Your task to perform on an android device: change keyboard looks Image 0: 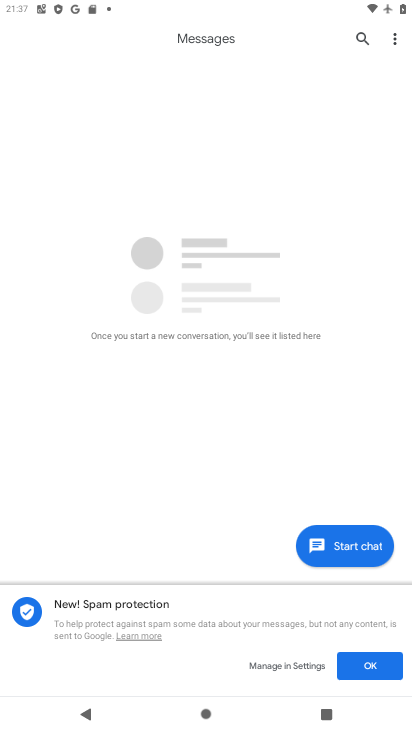
Step 0: press home button
Your task to perform on an android device: change keyboard looks Image 1: 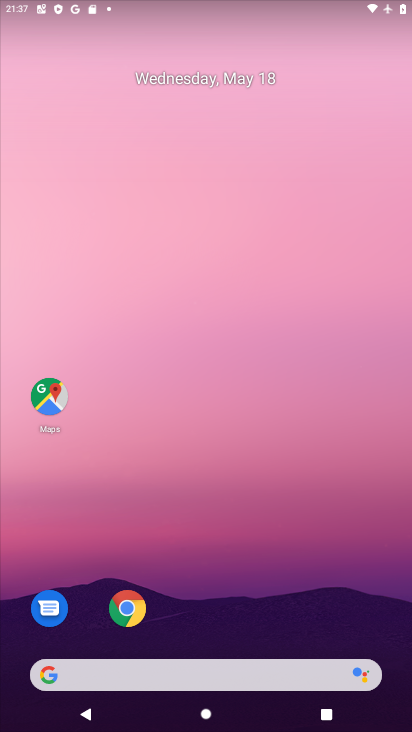
Step 1: drag from (244, 616) to (142, 39)
Your task to perform on an android device: change keyboard looks Image 2: 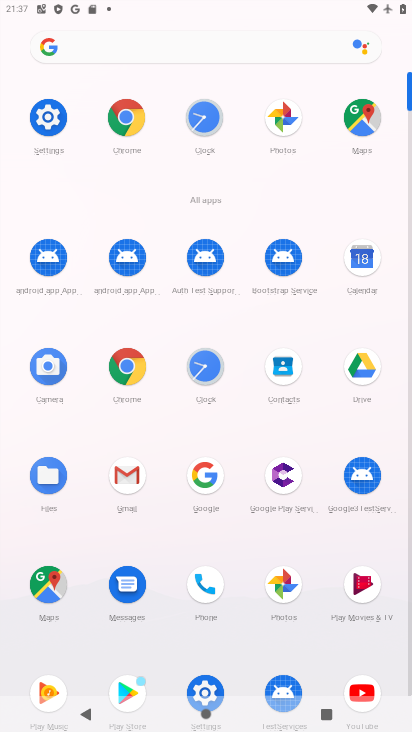
Step 2: click (63, 118)
Your task to perform on an android device: change keyboard looks Image 3: 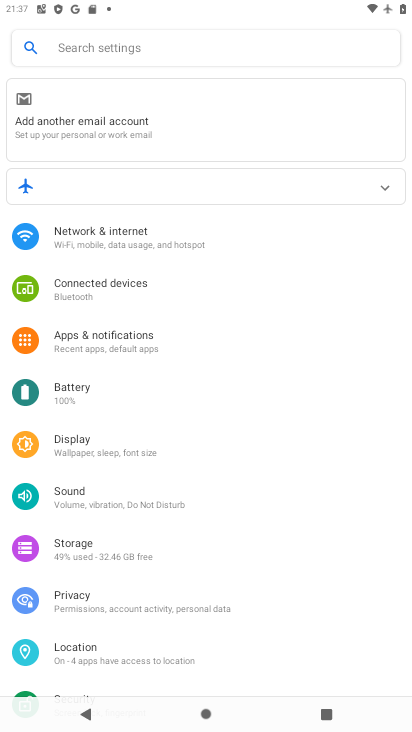
Step 3: drag from (155, 571) to (122, 154)
Your task to perform on an android device: change keyboard looks Image 4: 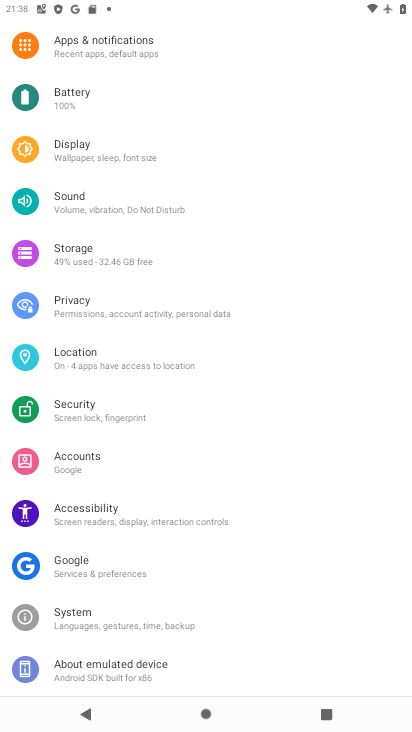
Step 4: click (107, 606)
Your task to perform on an android device: change keyboard looks Image 5: 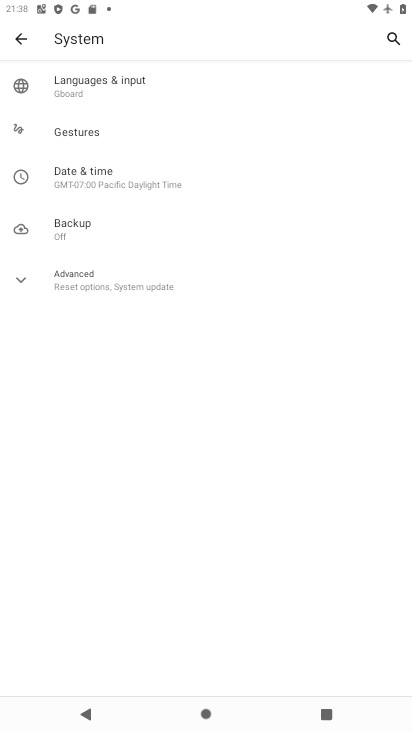
Step 5: click (43, 96)
Your task to perform on an android device: change keyboard looks Image 6: 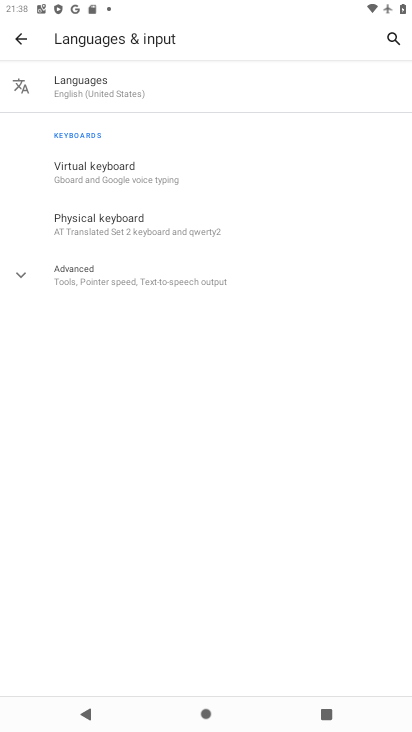
Step 6: click (165, 172)
Your task to perform on an android device: change keyboard looks Image 7: 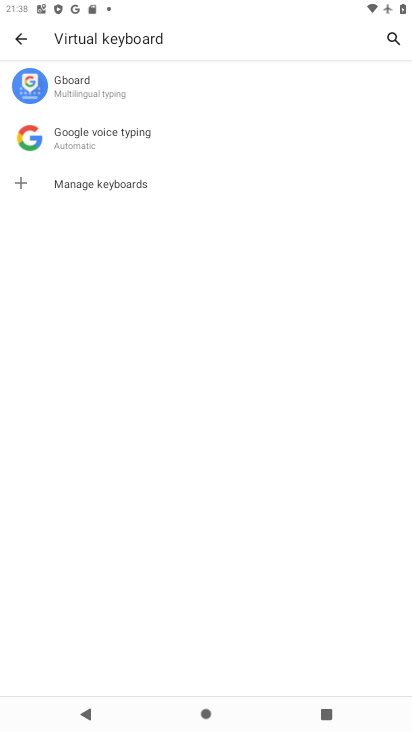
Step 7: click (122, 76)
Your task to perform on an android device: change keyboard looks Image 8: 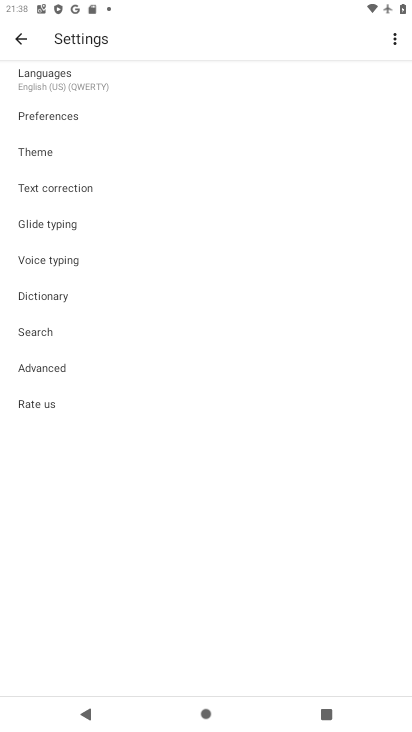
Step 8: click (95, 146)
Your task to perform on an android device: change keyboard looks Image 9: 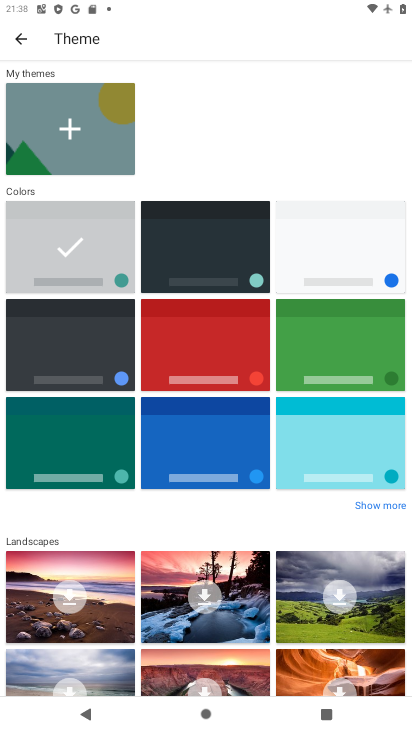
Step 9: click (196, 219)
Your task to perform on an android device: change keyboard looks Image 10: 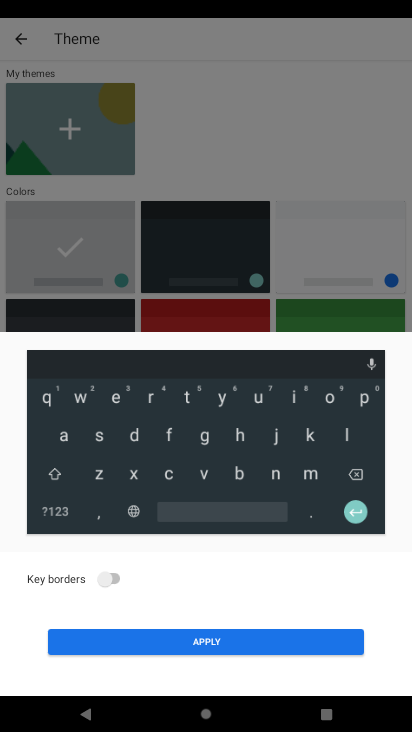
Step 10: click (289, 644)
Your task to perform on an android device: change keyboard looks Image 11: 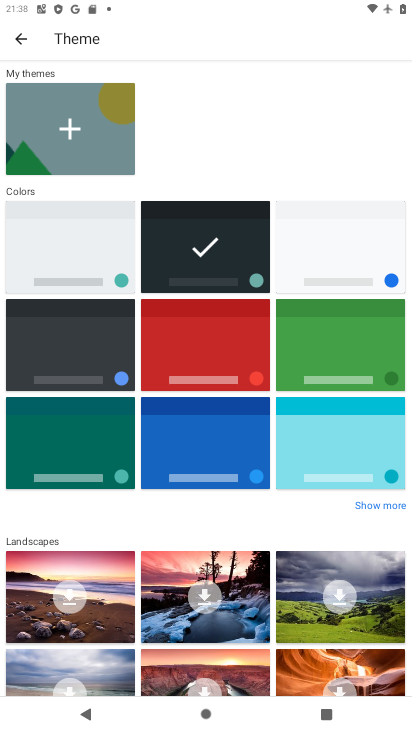
Step 11: task complete